Your task to perform on an android device: turn pop-ups off in chrome Image 0: 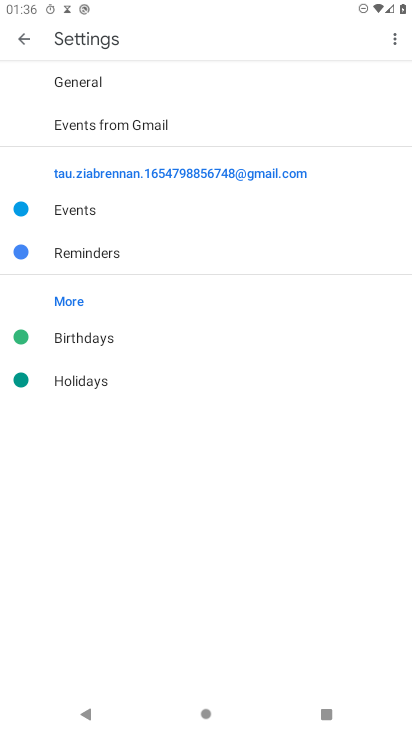
Step 0: press home button
Your task to perform on an android device: turn pop-ups off in chrome Image 1: 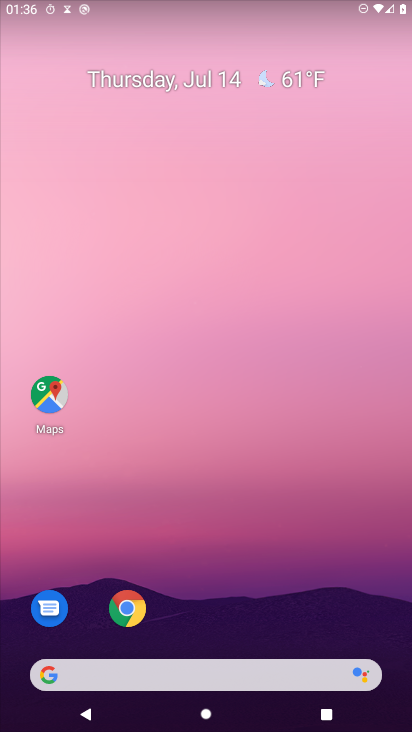
Step 1: click (122, 611)
Your task to perform on an android device: turn pop-ups off in chrome Image 2: 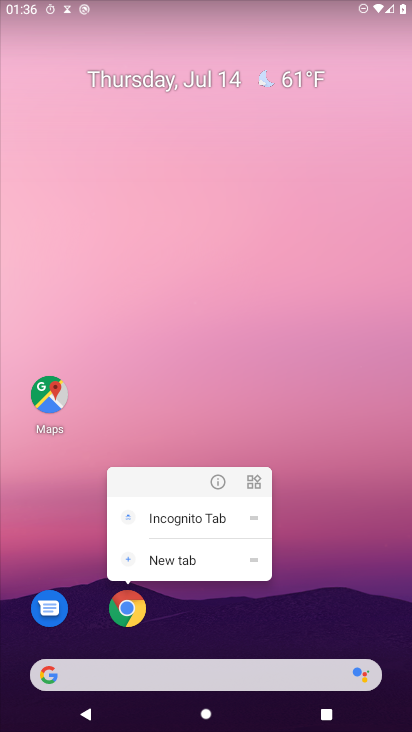
Step 2: click (131, 608)
Your task to perform on an android device: turn pop-ups off in chrome Image 3: 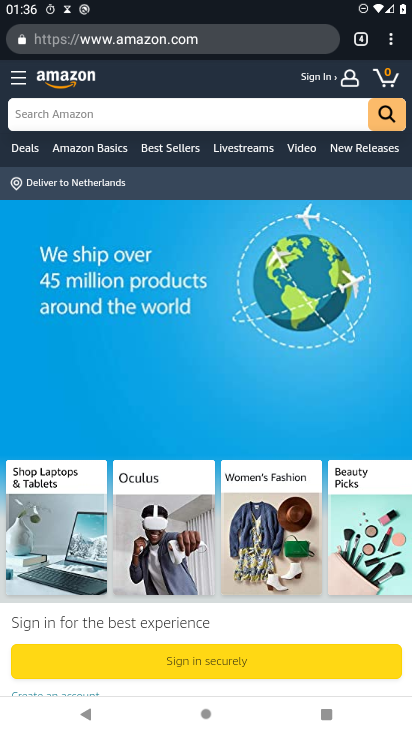
Step 3: click (394, 48)
Your task to perform on an android device: turn pop-ups off in chrome Image 4: 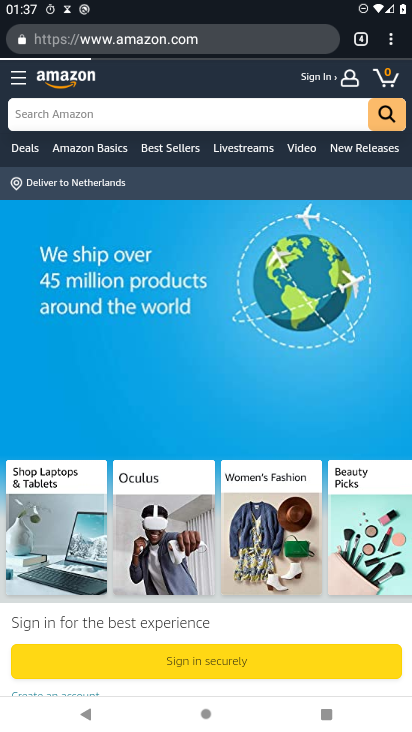
Step 4: drag from (394, 48) to (258, 474)
Your task to perform on an android device: turn pop-ups off in chrome Image 5: 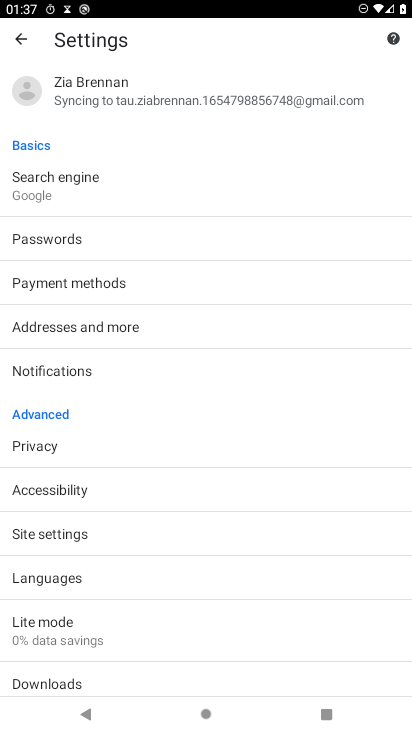
Step 5: click (42, 535)
Your task to perform on an android device: turn pop-ups off in chrome Image 6: 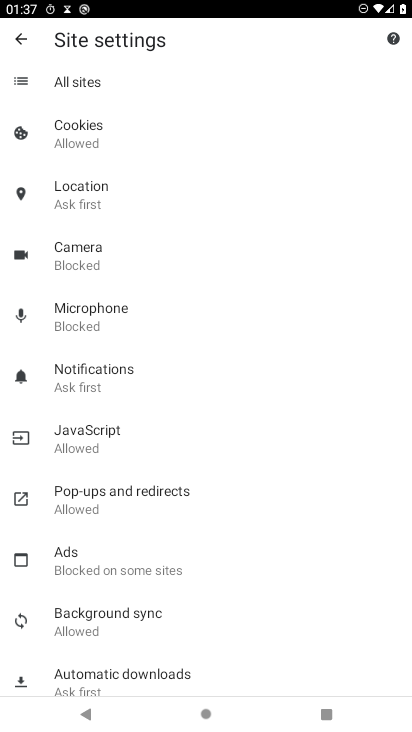
Step 6: click (91, 497)
Your task to perform on an android device: turn pop-ups off in chrome Image 7: 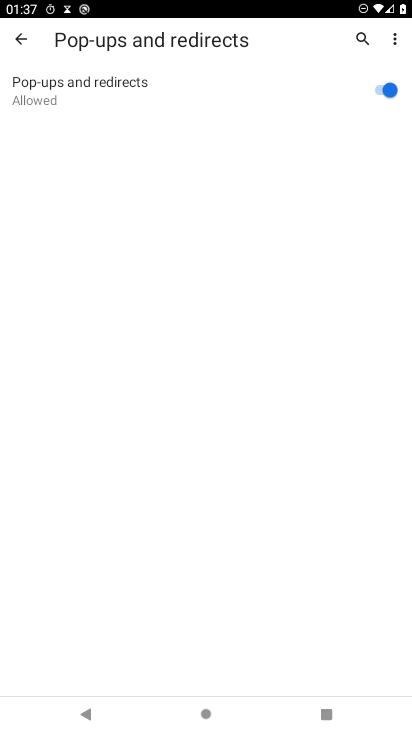
Step 7: click (387, 89)
Your task to perform on an android device: turn pop-ups off in chrome Image 8: 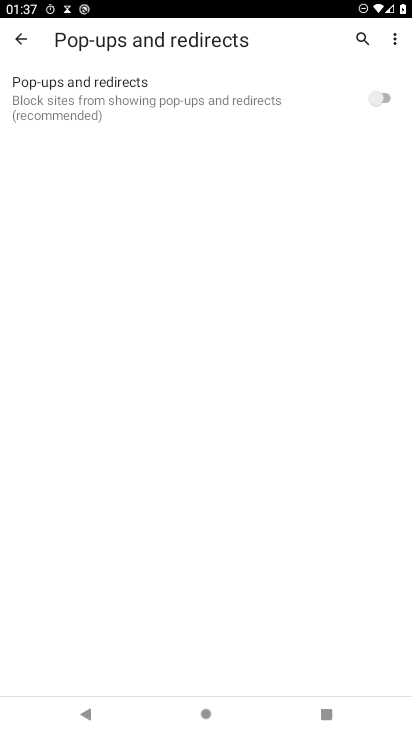
Step 8: task complete